Your task to perform on an android device: Search for sushi restaurants on Maps Image 0: 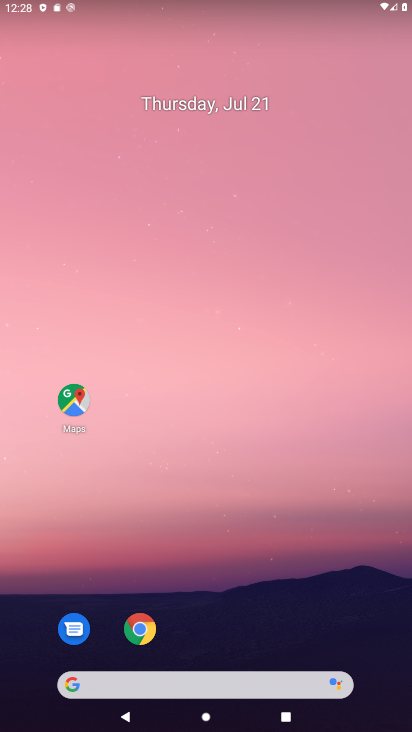
Step 0: drag from (274, 609) to (181, 146)
Your task to perform on an android device: Search for sushi restaurants on Maps Image 1: 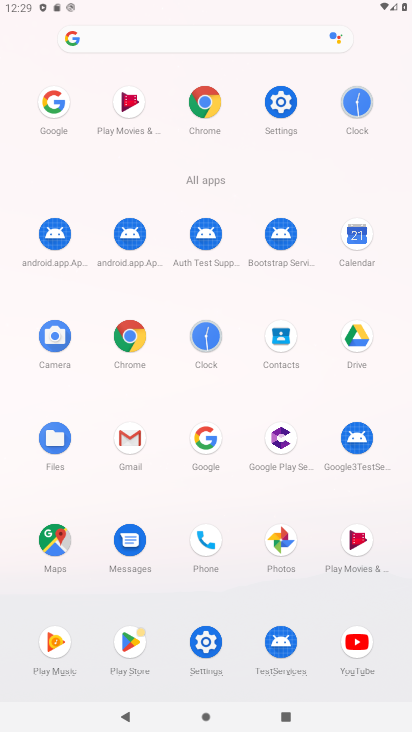
Step 1: click (61, 536)
Your task to perform on an android device: Search for sushi restaurants on Maps Image 2: 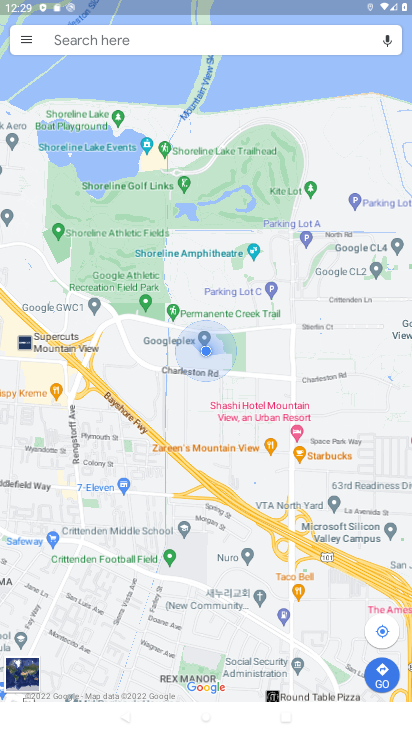
Step 2: click (242, 31)
Your task to perform on an android device: Search for sushi restaurants on Maps Image 3: 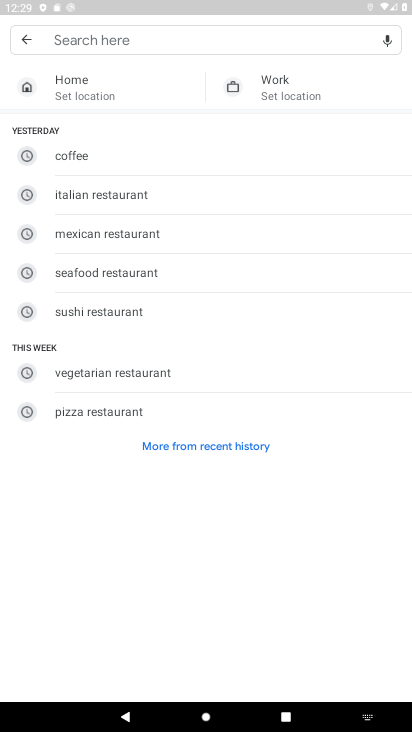
Step 3: click (200, 307)
Your task to perform on an android device: Search for sushi restaurants on Maps Image 4: 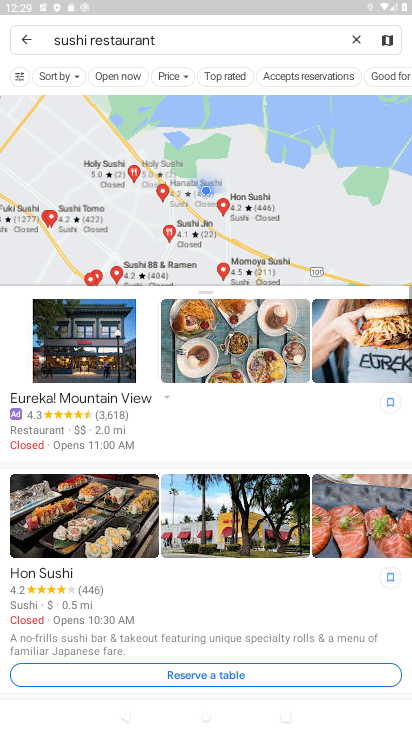
Step 4: task complete